Your task to perform on an android device: Open the map Image 0: 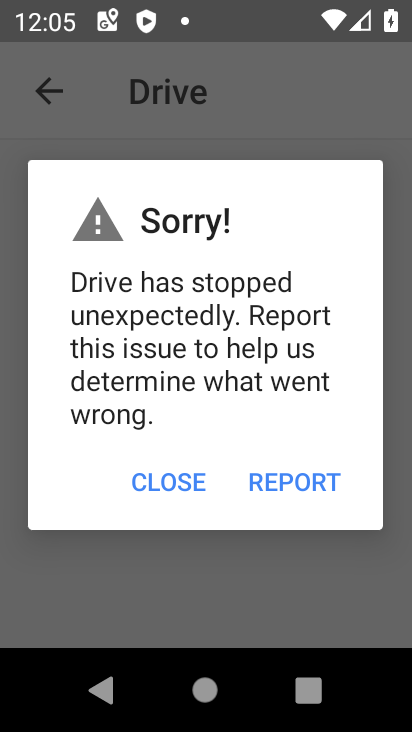
Step 0: press home button
Your task to perform on an android device: Open the map Image 1: 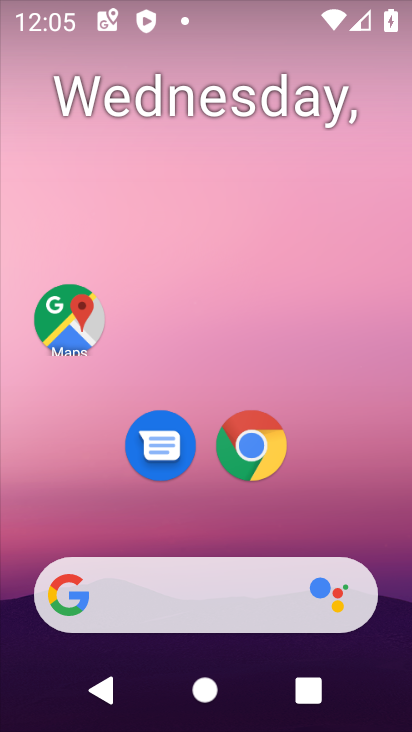
Step 1: drag from (340, 483) to (299, 92)
Your task to perform on an android device: Open the map Image 2: 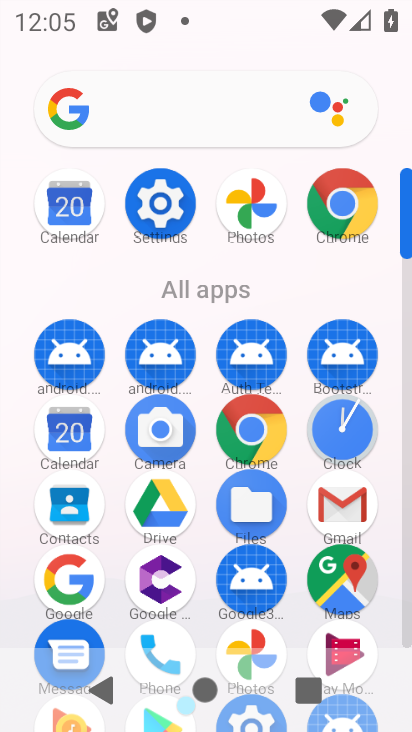
Step 2: click (340, 575)
Your task to perform on an android device: Open the map Image 3: 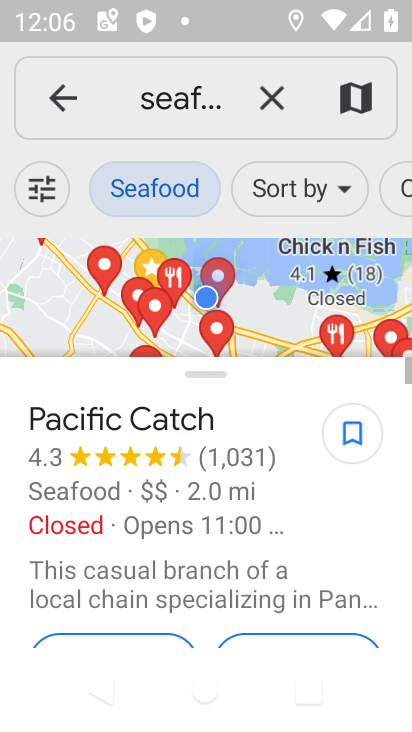
Step 3: task complete